Your task to perform on an android device: What's on my calendar today? Image 0: 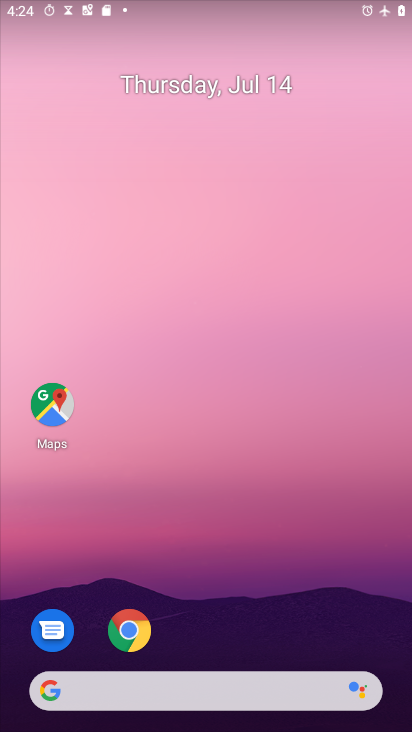
Step 0: drag from (200, 727) to (231, 276)
Your task to perform on an android device: What's on my calendar today? Image 1: 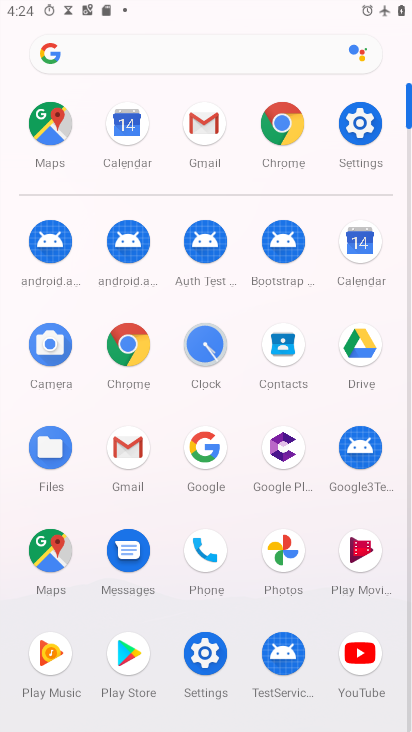
Step 1: click (359, 237)
Your task to perform on an android device: What's on my calendar today? Image 2: 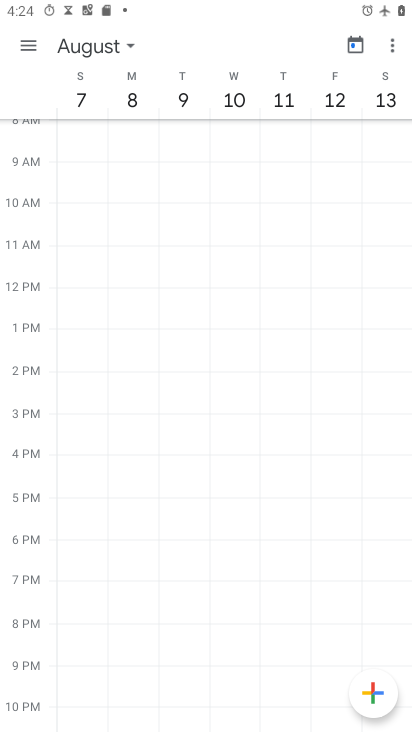
Step 2: click (128, 44)
Your task to perform on an android device: What's on my calendar today? Image 3: 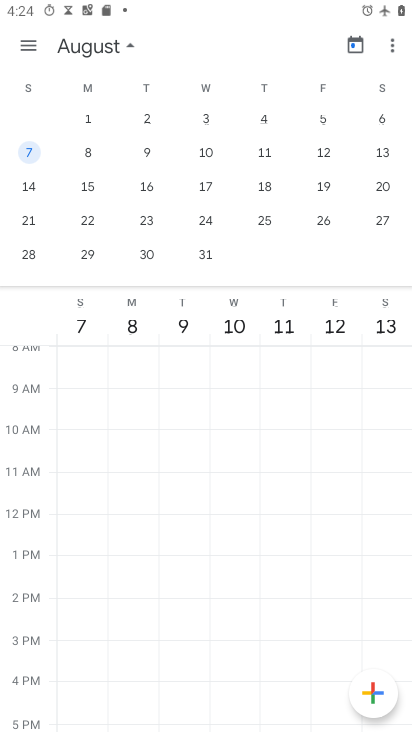
Step 3: drag from (52, 184) to (313, 169)
Your task to perform on an android device: What's on my calendar today? Image 4: 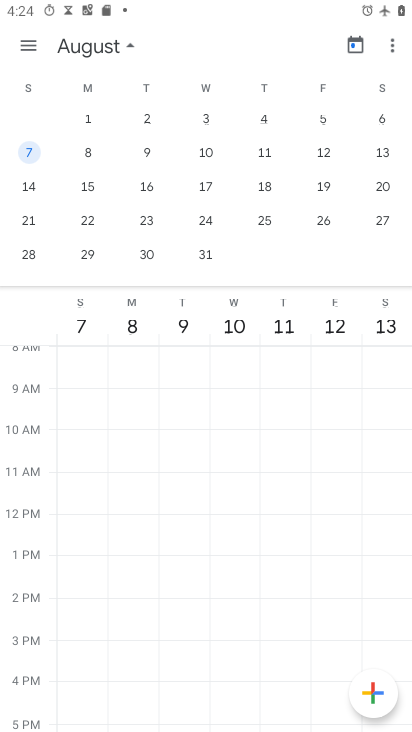
Step 4: drag from (63, 166) to (354, 124)
Your task to perform on an android device: What's on my calendar today? Image 5: 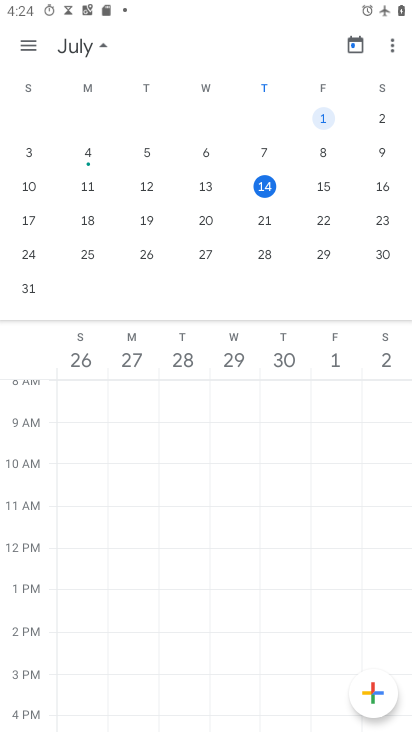
Step 5: click (265, 180)
Your task to perform on an android device: What's on my calendar today? Image 6: 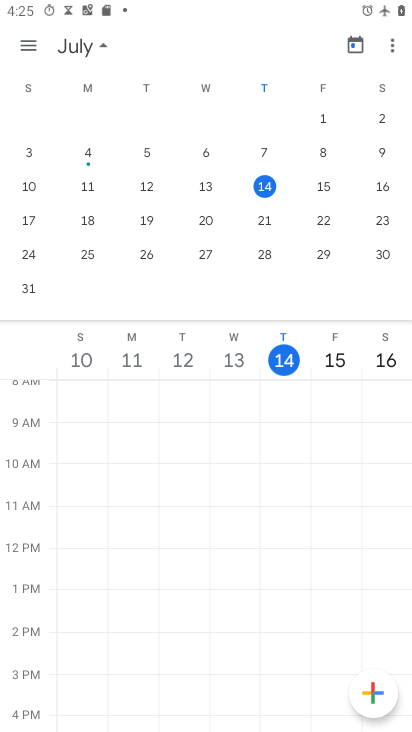
Step 6: click (292, 364)
Your task to perform on an android device: What's on my calendar today? Image 7: 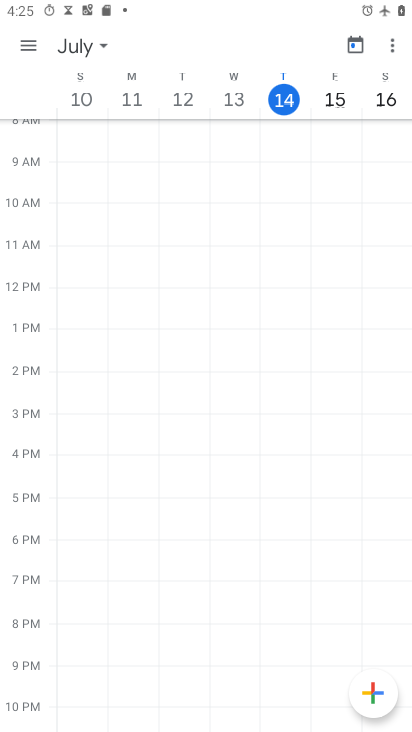
Step 7: click (273, 101)
Your task to perform on an android device: What's on my calendar today? Image 8: 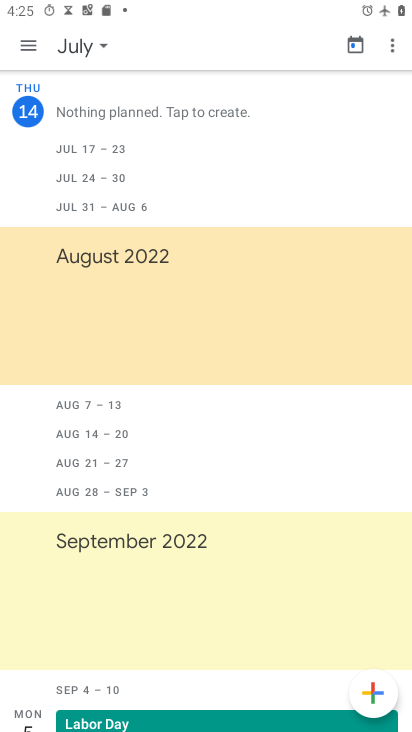
Step 8: task complete